Your task to perform on an android device: change notifications settings Image 0: 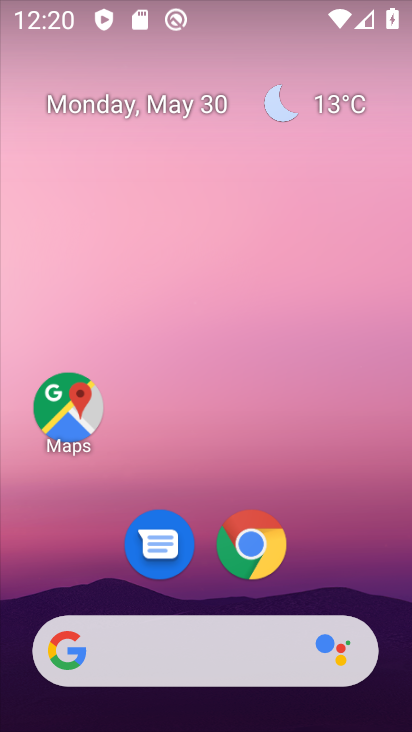
Step 0: drag from (375, 583) to (175, 34)
Your task to perform on an android device: change notifications settings Image 1: 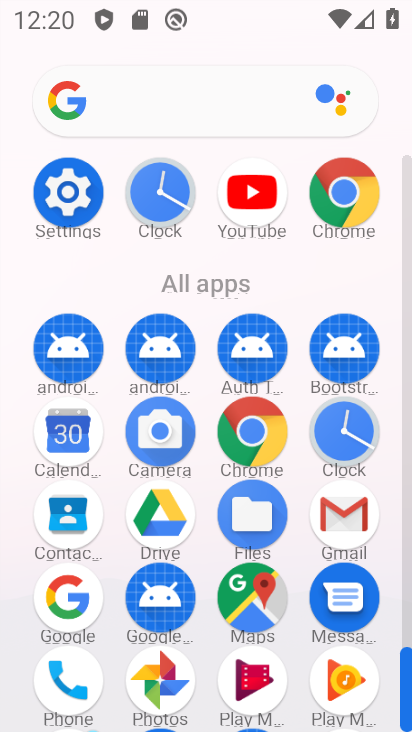
Step 1: click (70, 195)
Your task to perform on an android device: change notifications settings Image 2: 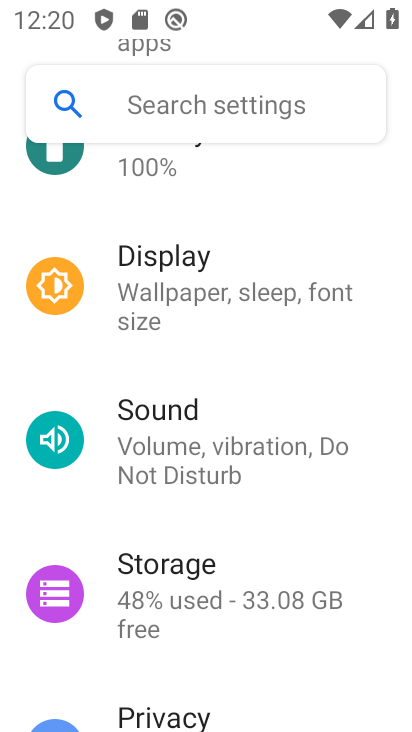
Step 2: drag from (205, 367) to (290, 607)
Your task to perform on an android device: change notifications settings Image 3: 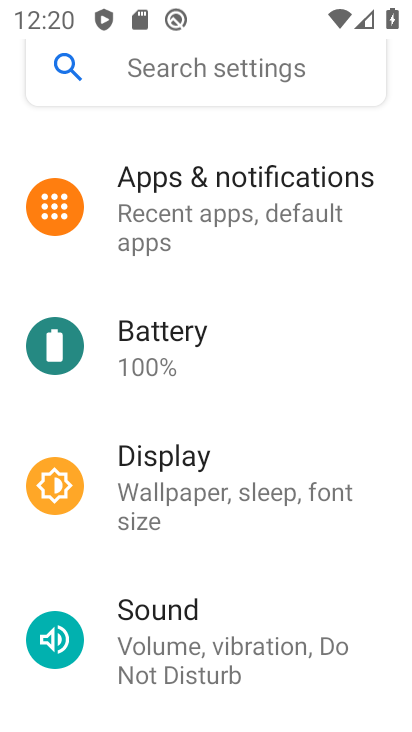
Step 3: click (229, 230)
Your task to perform on an android device: change notifications settings Image 4: 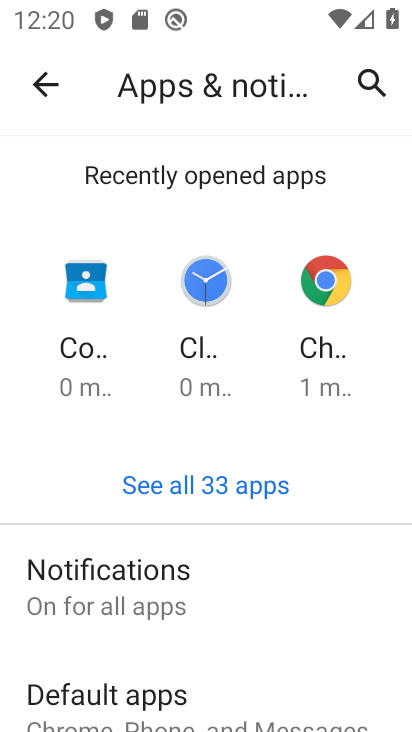
Step 4: click (188, 586)
Your task to perform on an android device: change notifications settings Image 5: 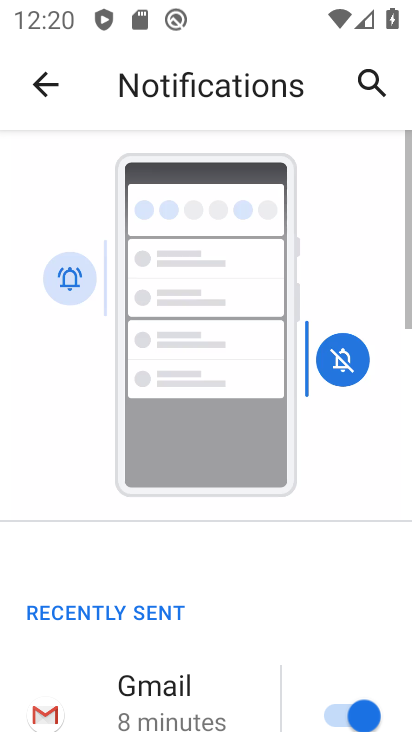
Step 5: task complete